Your task to perform on an android device: open a bookmark in the chrome app Image 0: 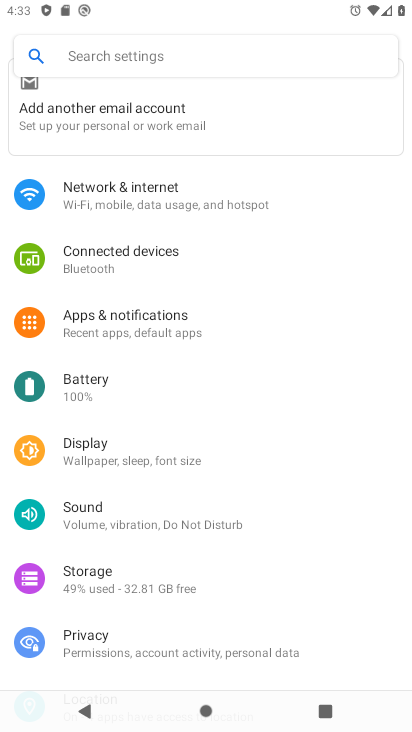
Step 0: press home button
Your task to perform on an android device: open a bookmark in the chrome app Image 1: 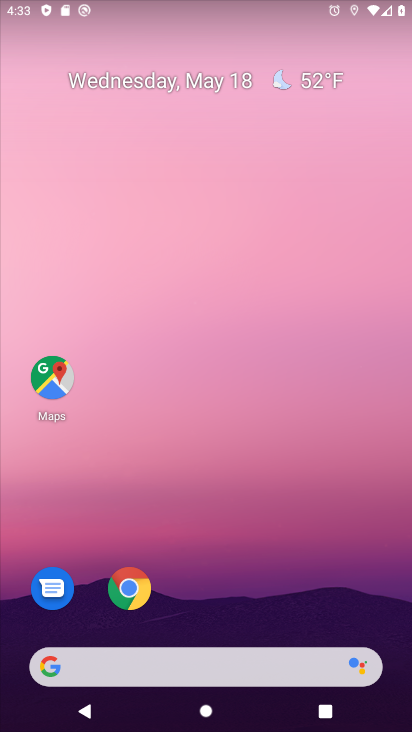
Step 1: click (128, 600)
Your task to perform on an android device: open a bookmark in the chrome app Image 2: 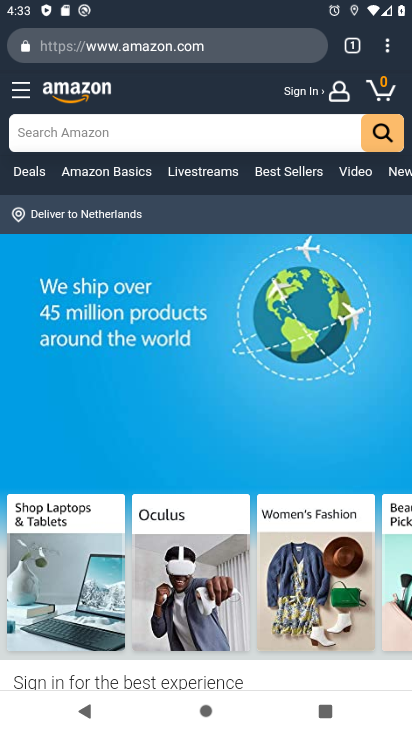
Step 2: task complete